Your task to perform on an android device: Search for sushi restaurants on Maps Image 0: 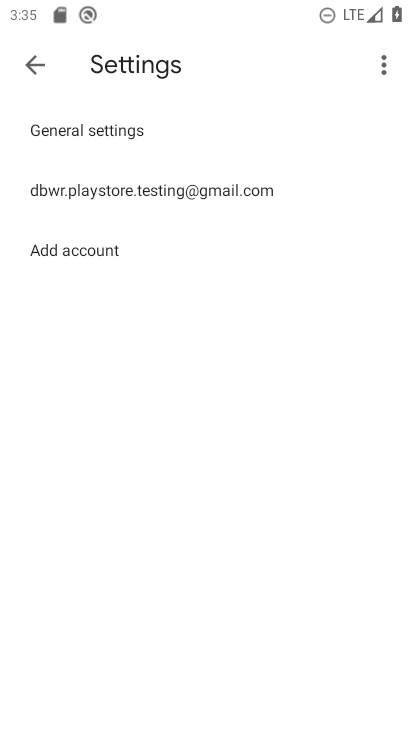
Step 0: press home button
Your task to perform on an android device: Search for sushi restaurants on Maps Image 1: 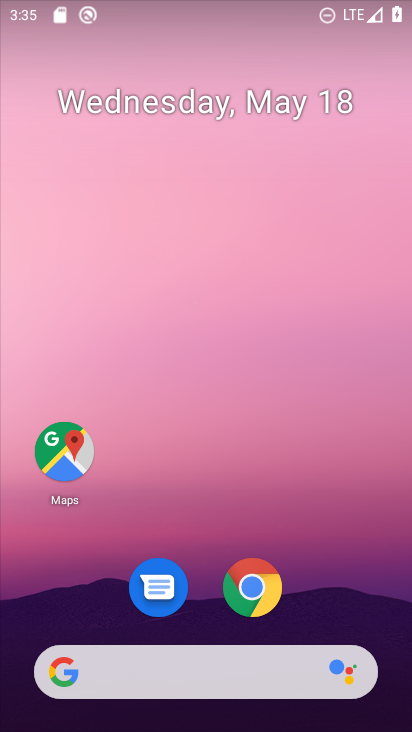
Step 1: click (60, 472)
Your task to perform on an android device: Search for sushi restaurants on Maps Image 2: 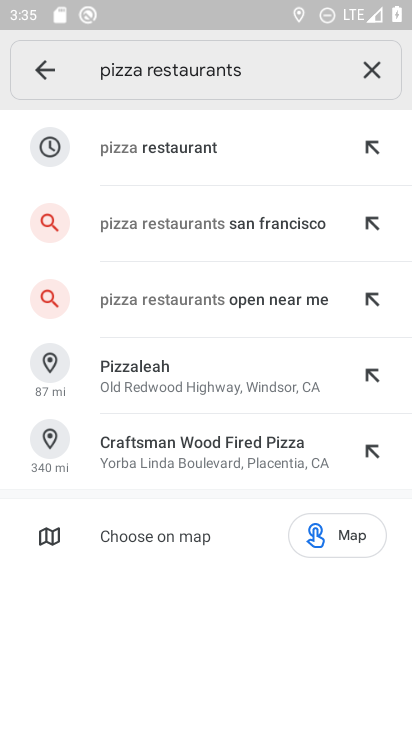
Step 2: click (377, 70)
Your task to perform on an android device: Search for sushi restaurants on Maps Image 3: 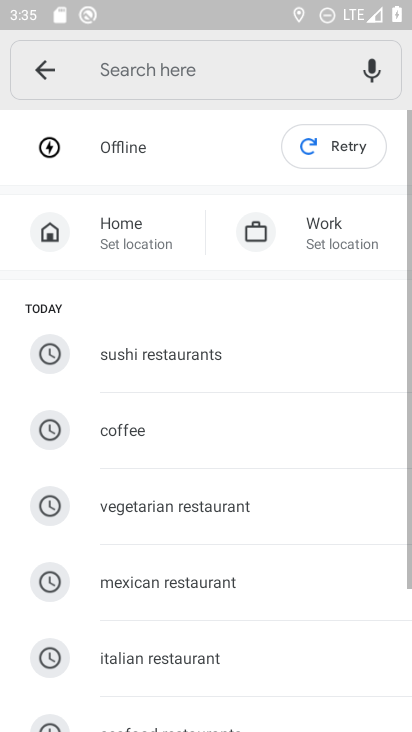
Step 3: click (226, 53)
Your task to perform on an android device: Search for sushi restaurants on Maps Image 4: 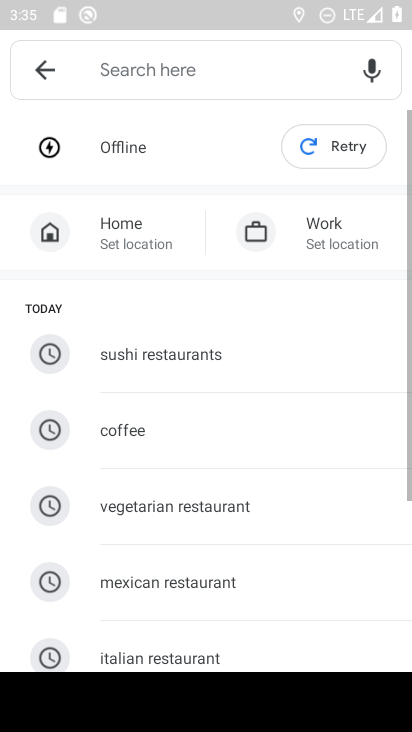
Step 4: click (157, 359)
Your task to perform on an android device: Search for sushi restaurants on Maps Image 5: 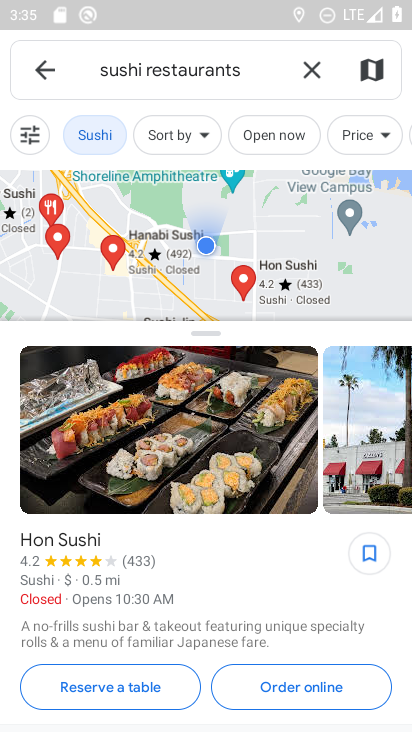
Step 5: task complete